Your task to perform on an android device: Open the calendar app, open the side menu, and click the "Day" option Image 0: 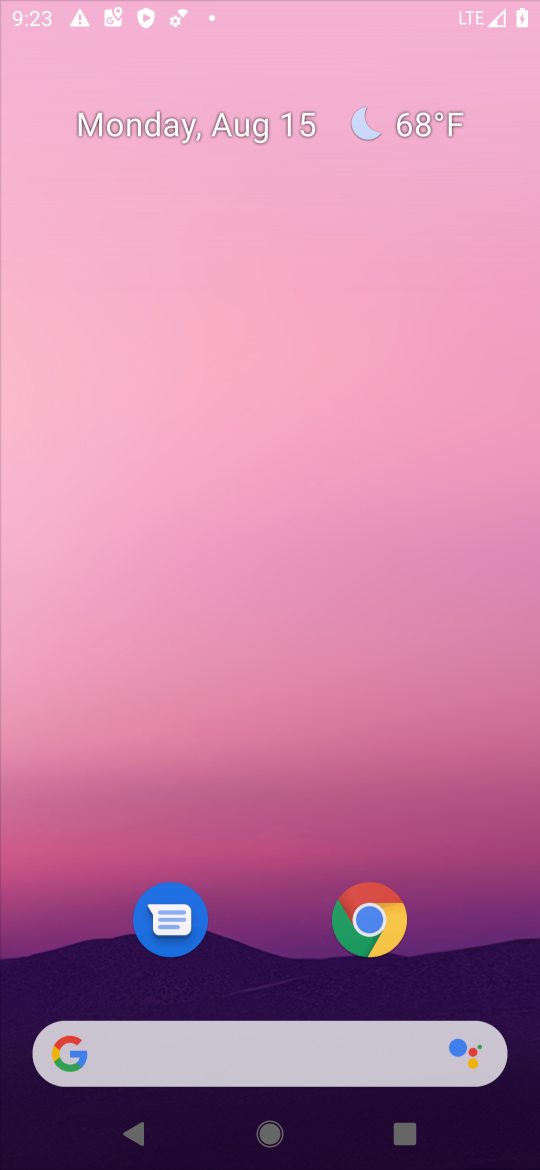
Step 0: press home button
Your task to perform on an android device: Open the calendar app, open the side menu, and click the "Day" option Image 1: 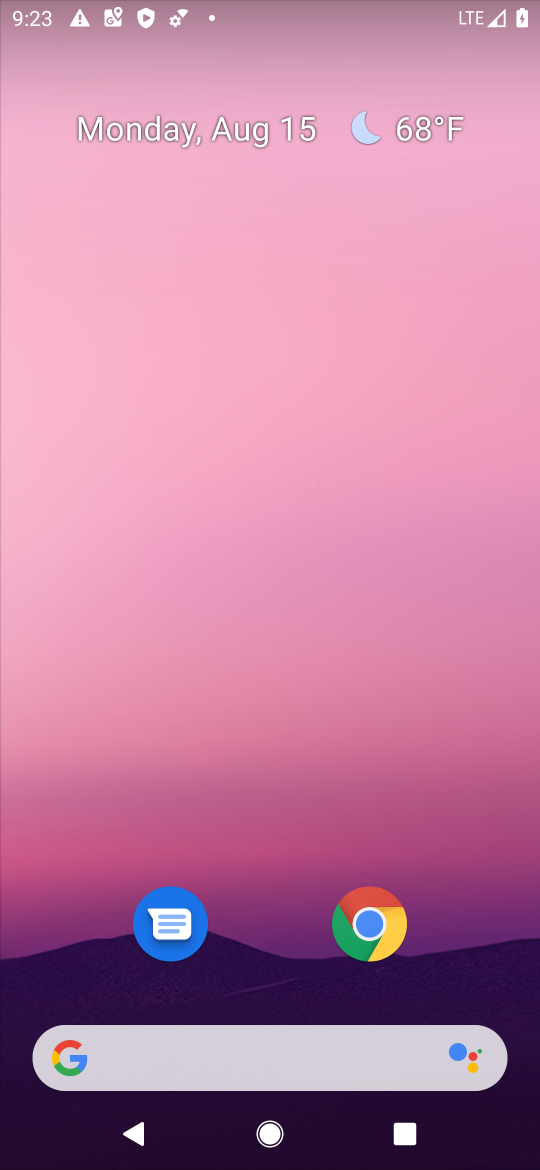
Step 1: drag from (515, 1005) to (465, 201)
Your task to perform on an android device: Open the calendar app, open the side menu, and click the "Day" option Image 2: 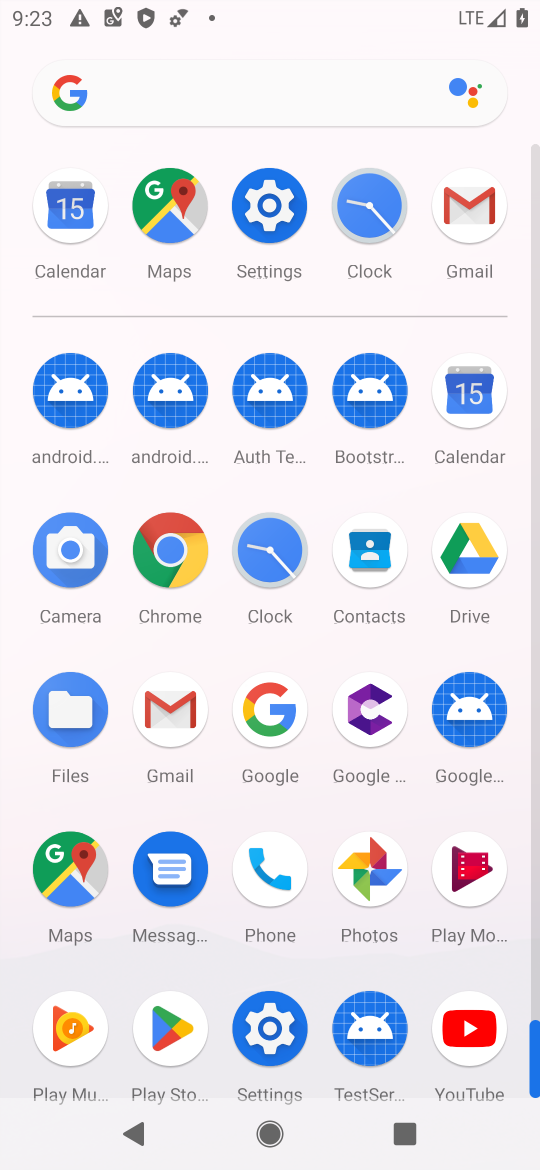
Step 2: click (473, 391)
Your task to perform on an android device: Open the calendar app, open the side menu, and click the "Day" option Image 3: 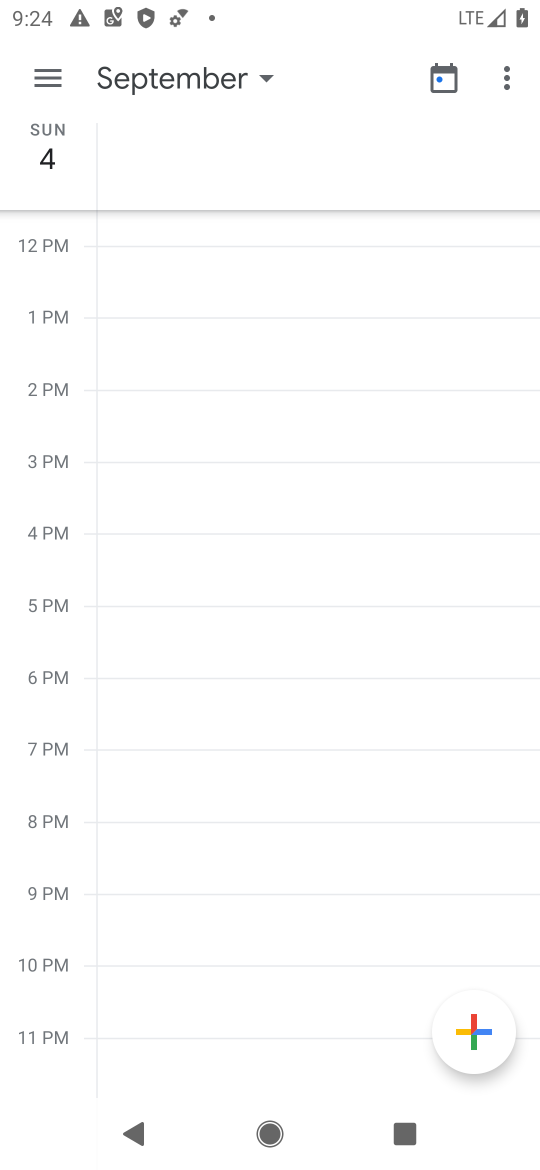
Step 3: press home button
Your task to perform on an android device: Open the calendar app, open the side menu, and click the "Day" option Image 4: 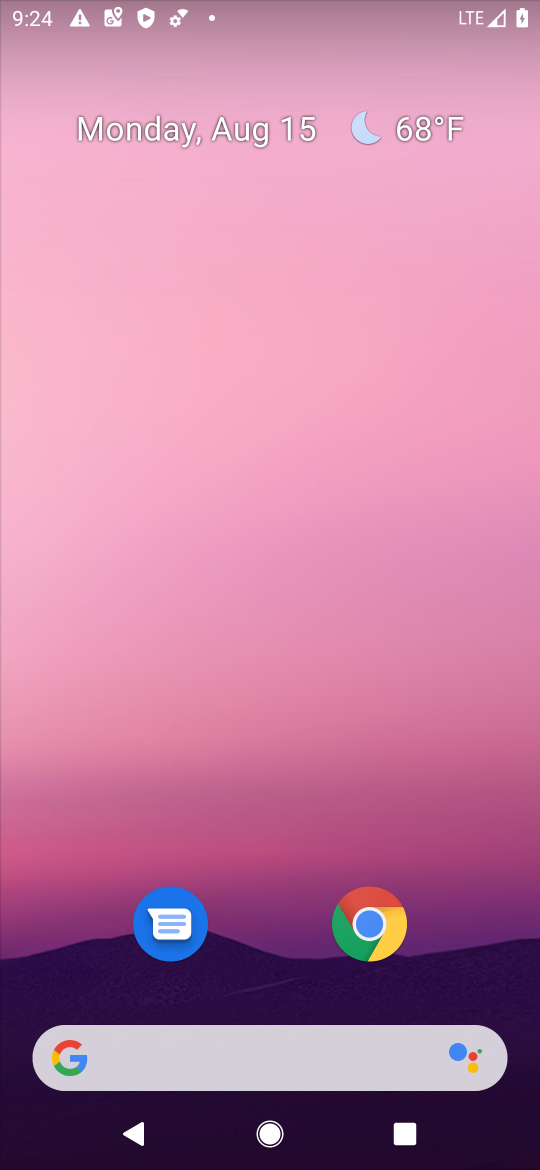
Step 4: drag from (524, 988) to (428, 161)
Your task to perform on an android device: Open the calendar app, open the side menu, and click the "Day" option Image 5: 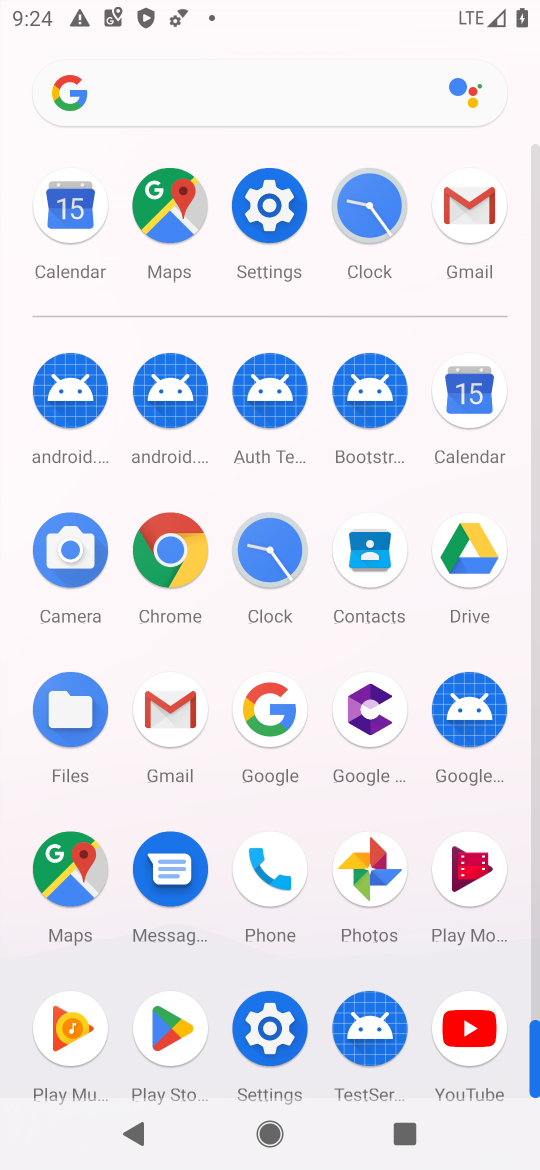
Step 5: click (472, 389)
Your task to perform on an android device: Open the calendar app, open the side menu, and click the "Day" option Image 6: 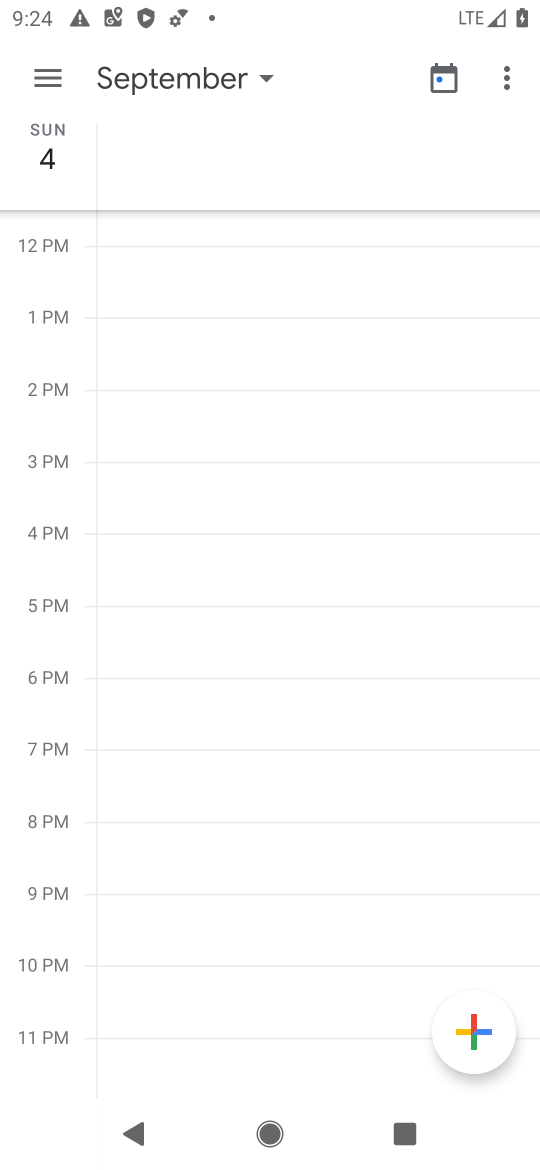
Step 6: click (53, 80)
Your task to perform on an android device: Open the calendar app, open the side menu, and click the "Day" option Image 7: 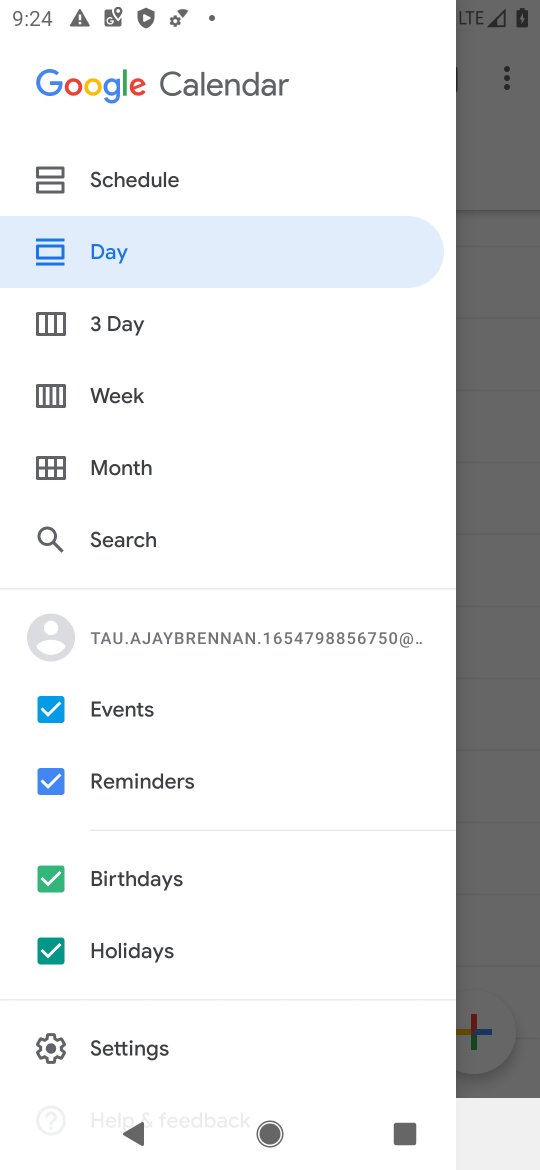
Step 7: click (148, 264)
Your task to perform on an android device: Open the calendar app, open the side menu, and click the "Day" option Image 8: 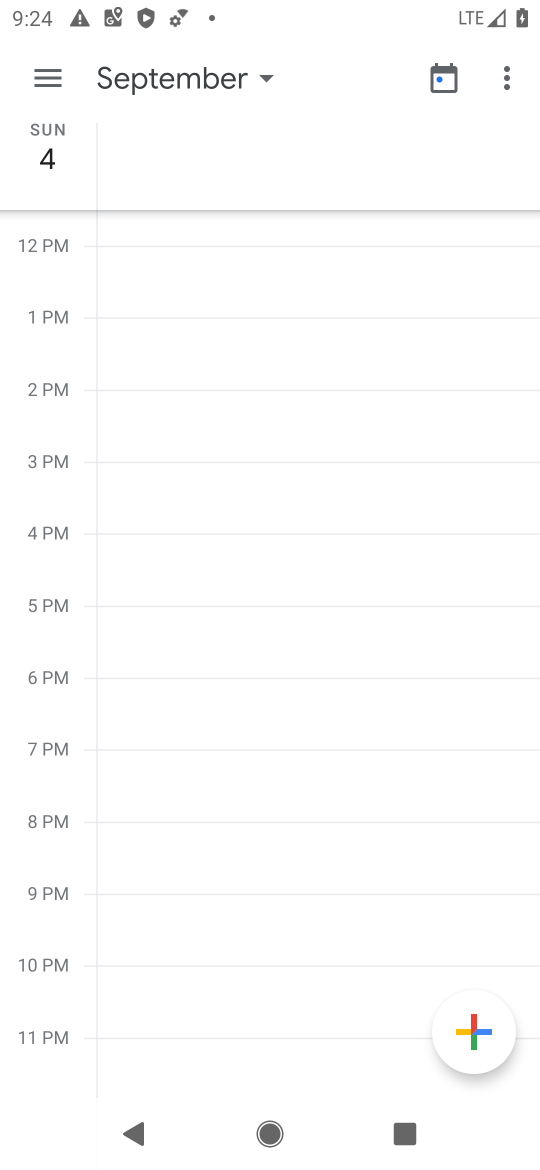
Step 8: task complete